Your task to perform on an android device: toggle notifications settings in the gmail app Image 0: 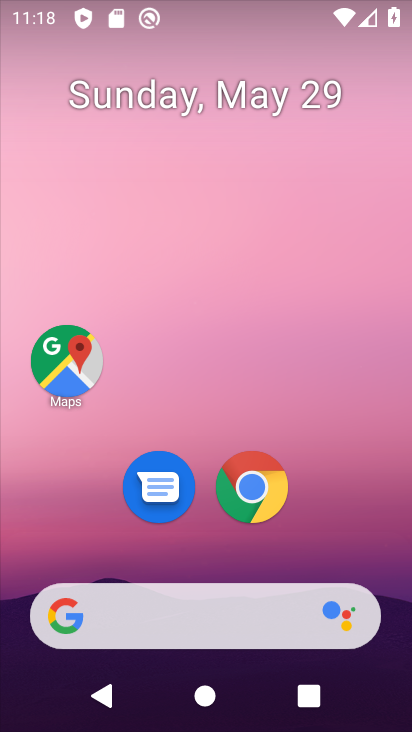
Step 0: drag from (235, 715) to (229, 179)
Your task to perform on an android device: toggle notifications settings in the gmail app Image 1: 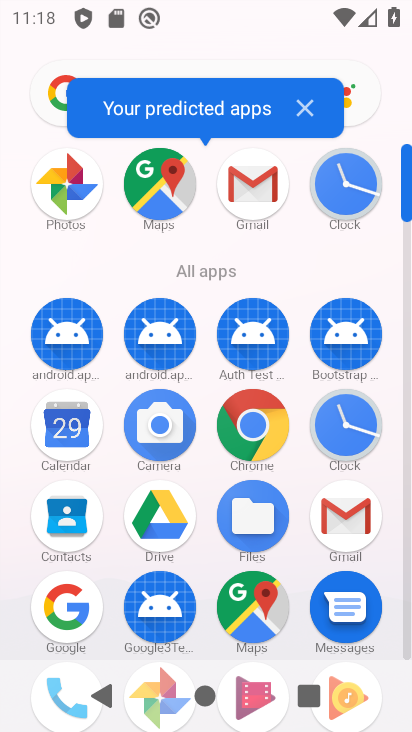
Step 1: click (343, 518)
Your task to perform on an android device: toggle notifications settings in the gmail app Image 2: 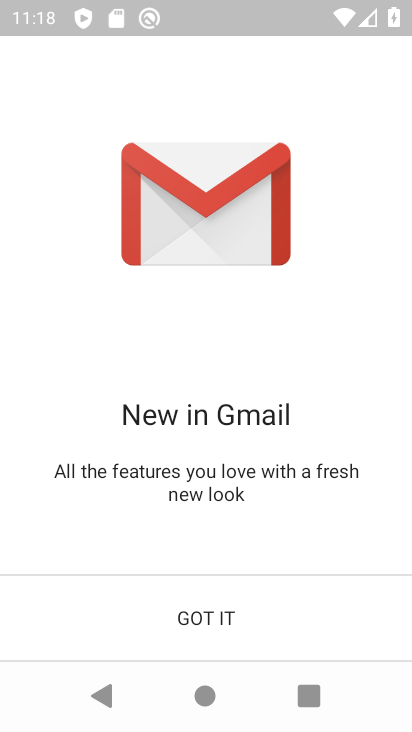
Step 2: click (206, 608)
Your task to perform on an android device: toggle notifications settings in the gmail app Image 3: 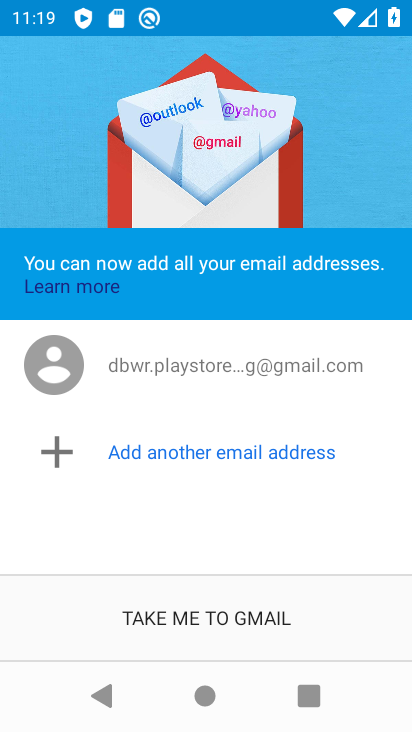
Step 3: click (205, 609)
Your task to perform on an android device: toggle notifications settings in the gmail app Image 4: 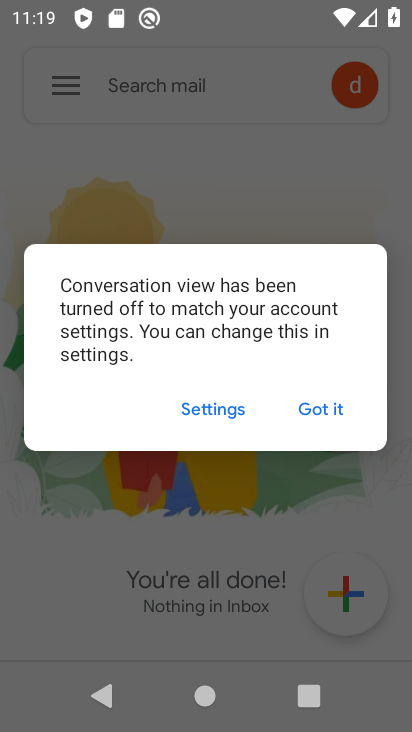
Step 4: click (328, 407)
Your task to perform on an android device: toggle notifications settings in the gmail app Image 5: 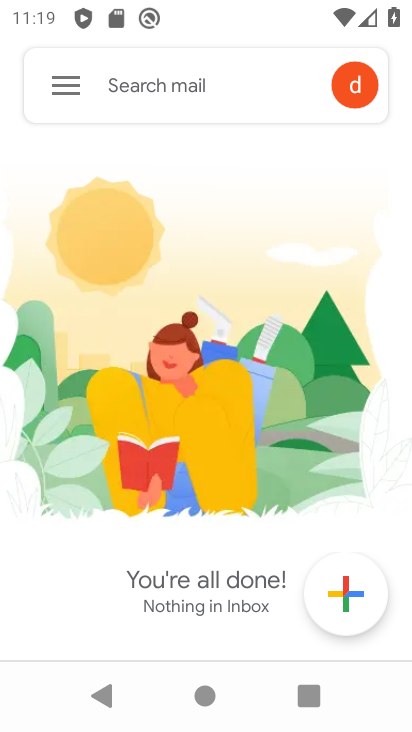
Step 5: click (66, 84)
Your task to perform on an android device: toggle notifications settings in the gmail app Image 6: 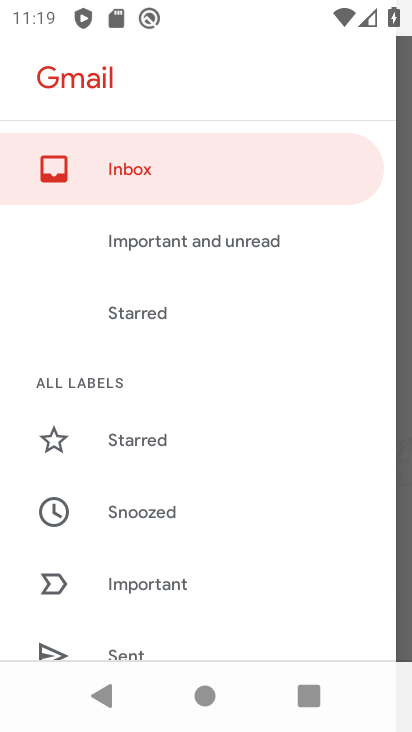
Step 6: drag from (154, 640) to (167, 81)
Your task to perform on an android device: toggle notifications settings in the gmail app Image 7: 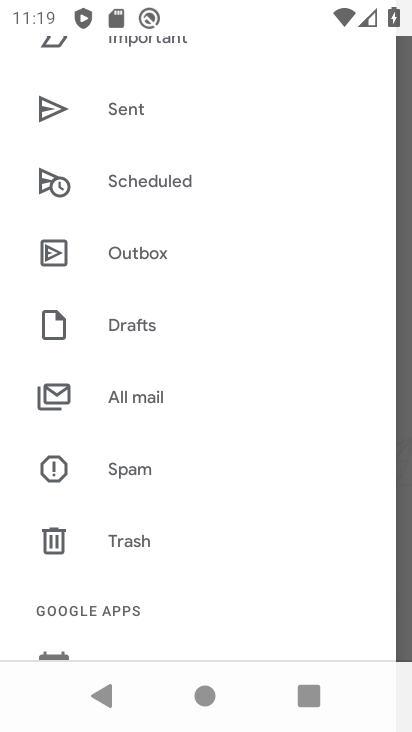
Step 7: drag from (135, 534) to (135, 131)
Your task to perform on an android device: toggle notifications settings in the gmail app Image 8: 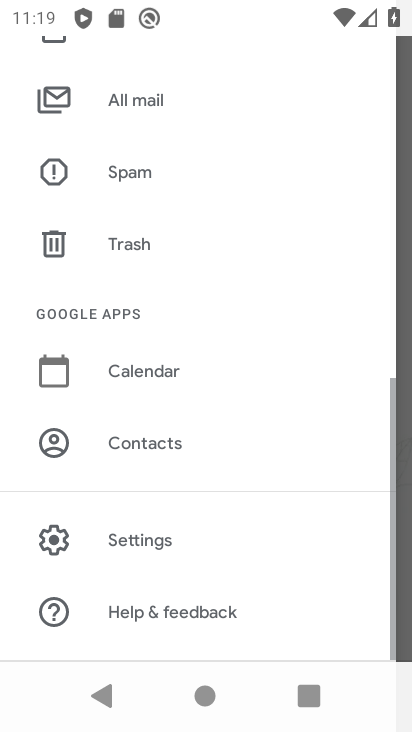
Step 8: click (137, 538)
Your task to perform on an android device: toggle notifications settings in the gmail app Image 9: 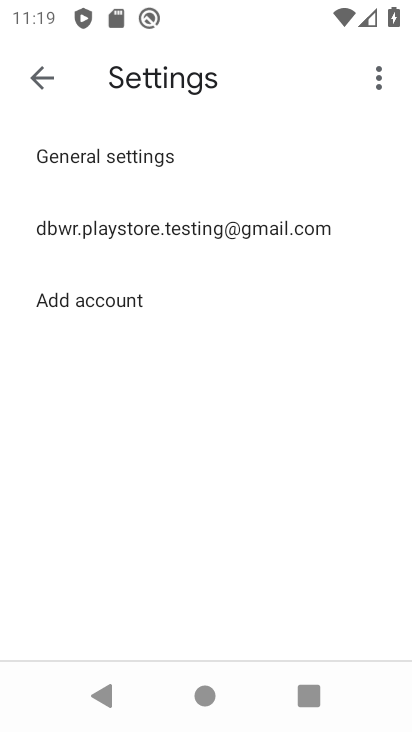
Step 9: click (159, 224)
Your task to perform on an android device: toggle notifications settings in the gmail app Image 10: 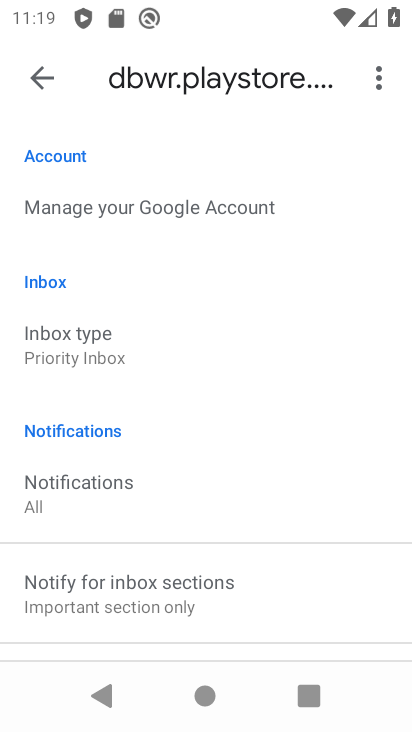
Step 10: drag from (134, 610) to (136, 405)
Your task to perform on an android device: toggle notifications settings in the gmail app Image 11: 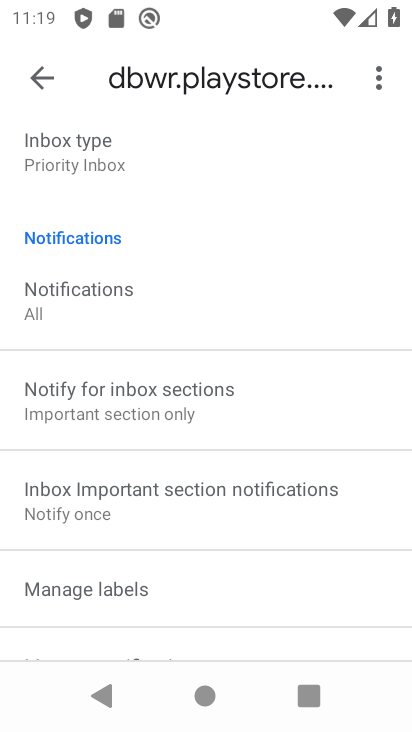
Step 11: click (78, 289)
Your task to perform on an android device: toggle notifications settings in the gmail app Image 12: 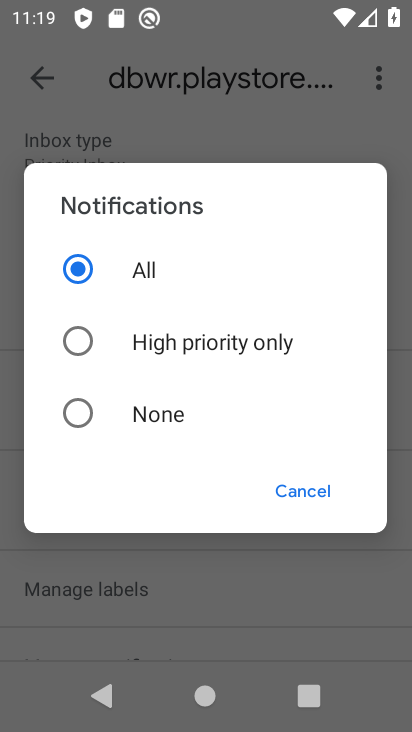
Step 12: click (74, 420)
Your task to perform on an android device: toggle notifications settings in the gmail app Image 13: 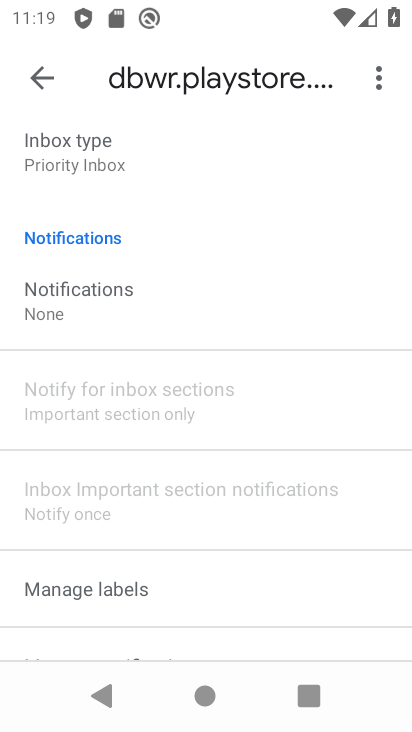
Step 13: task complete